Your task to perform on an android device: Open Reddit.com Image 0: 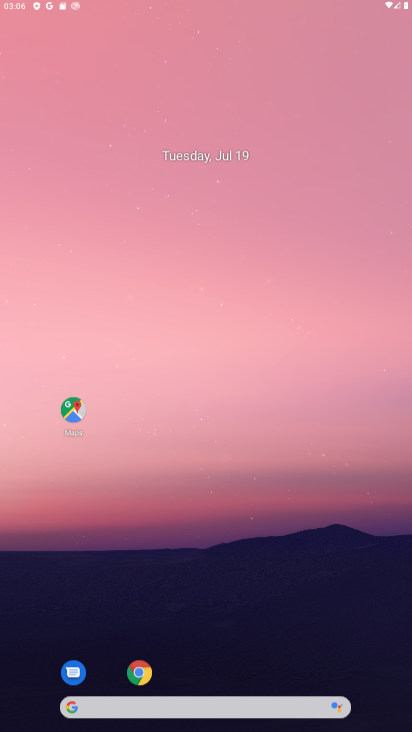
Step 0: drag from (191, 194) to (195, 135)
Your task to perform on an android device: Open Reddit.com Image 1: 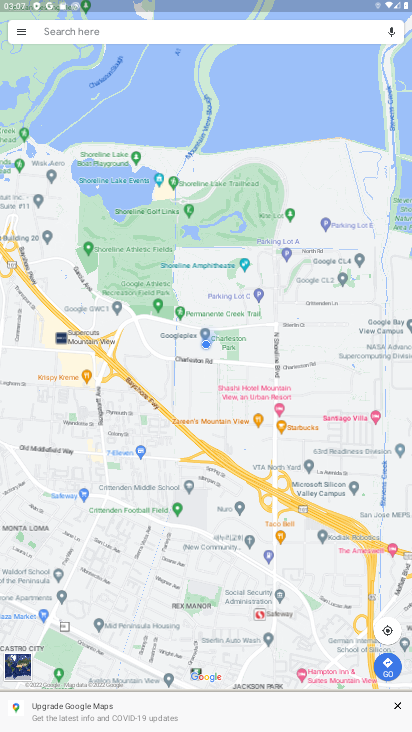
Step 1: press home button
Your task to perform on an android device: Open Reddit.com Image 2: 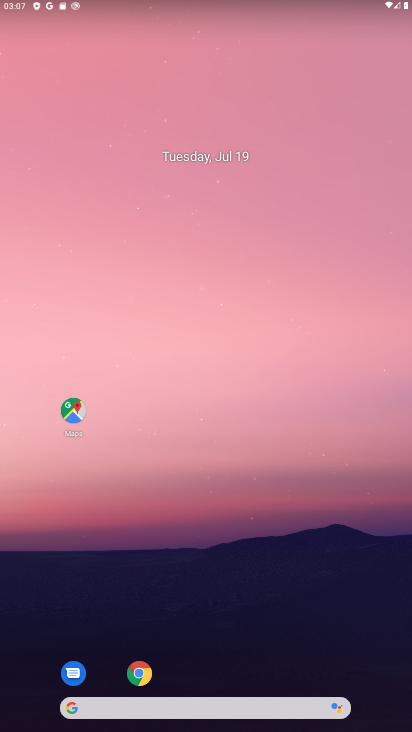
Step 2: click (133, 666)
Your task to perform on an android device: Open Reddit.com Image 3: 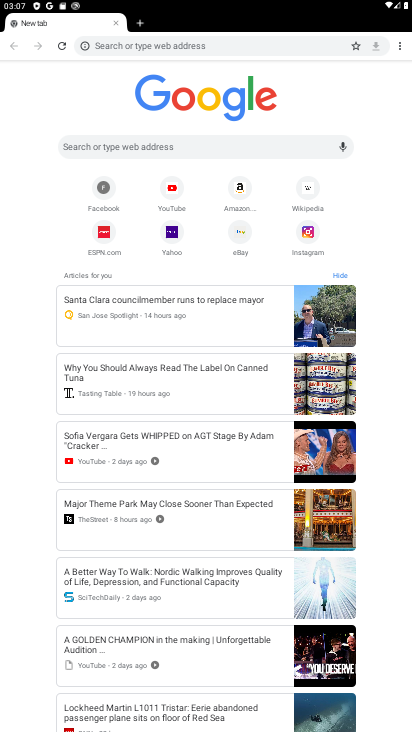
Step 3: click (149, 141)
Your task to perform on an android device: Open Reddit.com Image 4: 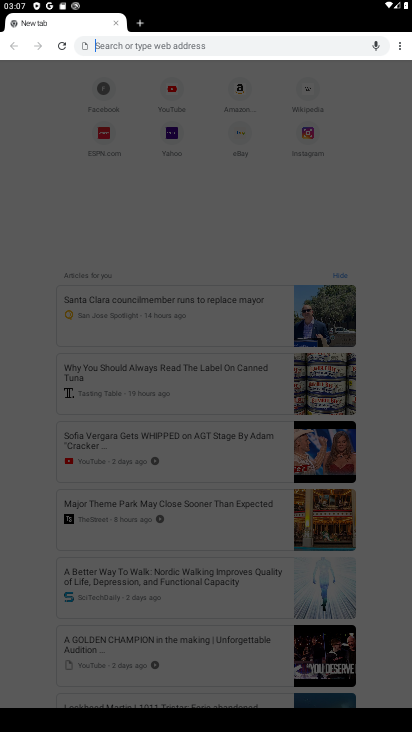
Step 4: type "reddit"
Your task to perform on an android device: Open Reddit.com Image 5: 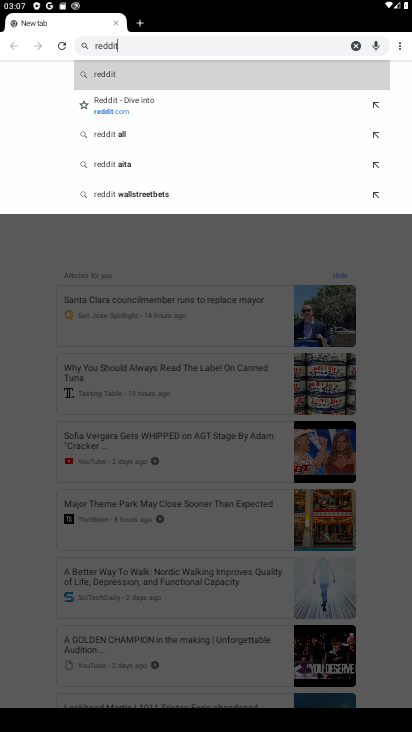
Step 5: click (133, 99)
Your task to perform on an android device: Open Reddit.com Image 6: 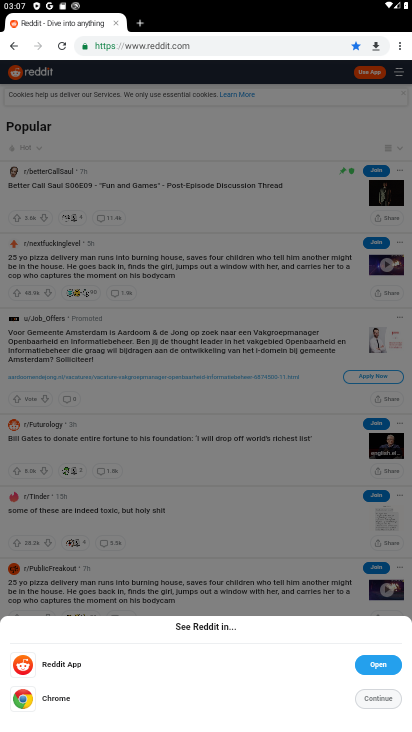
Step 6: click (377, 693)
Your task to perform on an android device: Open Reddit.com Image 7: 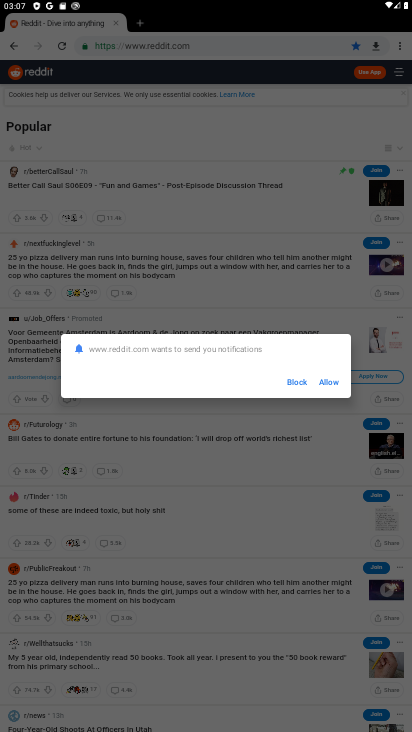
Step 7: click (328, 381)
Your task to perform on an android device: Open Reddit.com Image 8: 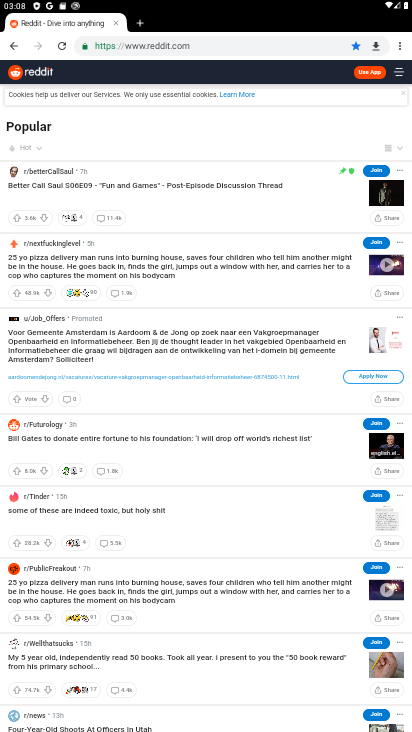
Step 8: task complete